Your task to perform on an android device: move a message to another label in the gmail app Image 0: 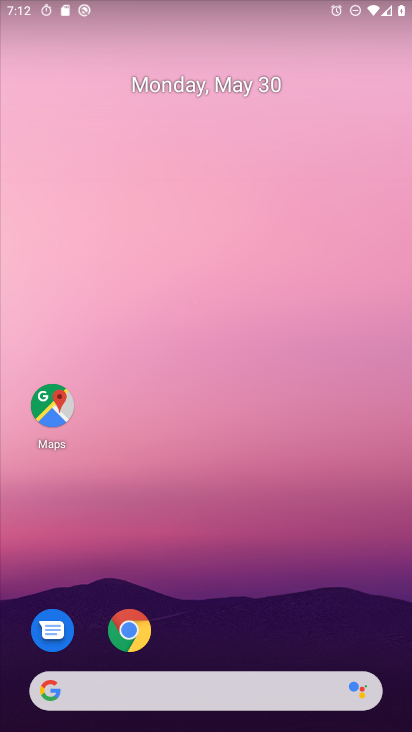
Step 0: drag from (345, 609) to (245, 1)
Your task to perform on an android device: move a message to another label in the gmail app Image 1: 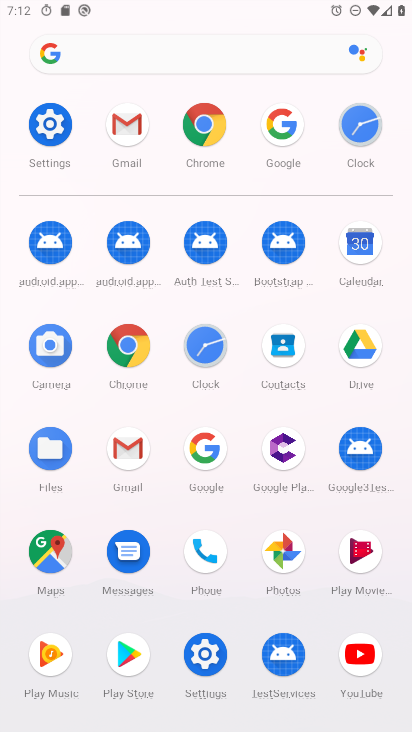
Step 1: click (134, 443)
Your task to perform on an android device: move a message to another label in the gmail app Image 2: 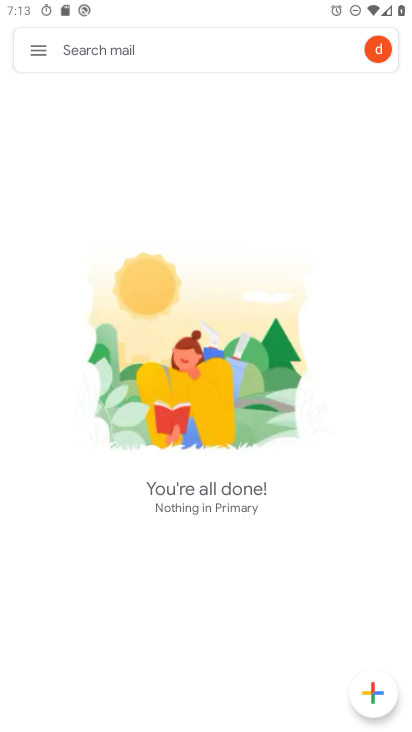
Step 2: task complete